Your task to perform on an android device: Clear all items from cart on walmart.com. Add bose soundlink to the cart on walmart.com Image 0: 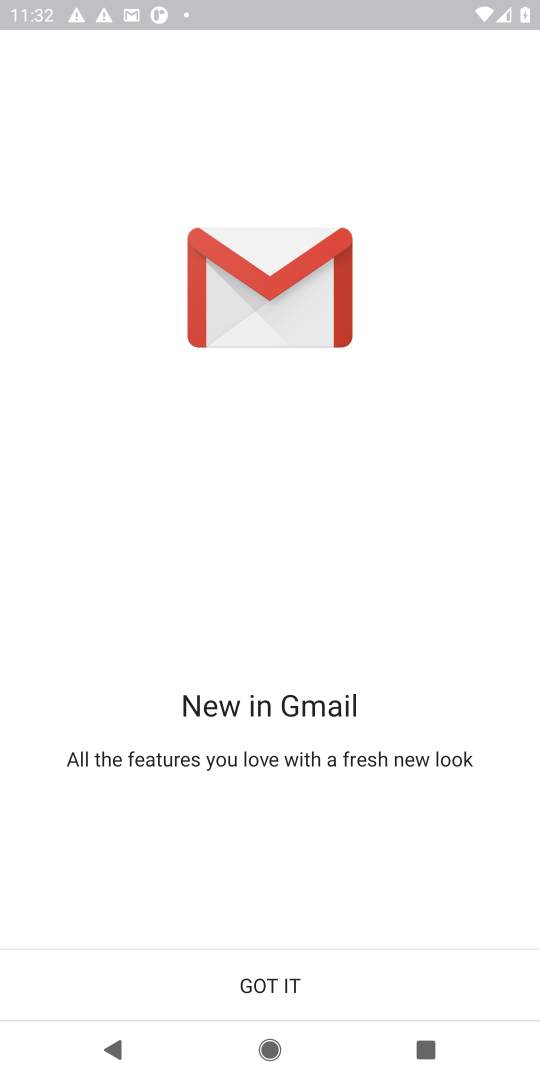
Step 0: press home button
Your task to perform on an android device: Clear all items from cart on walmart.com. Add bose soundlink to the cart on walmart.com Image 1: 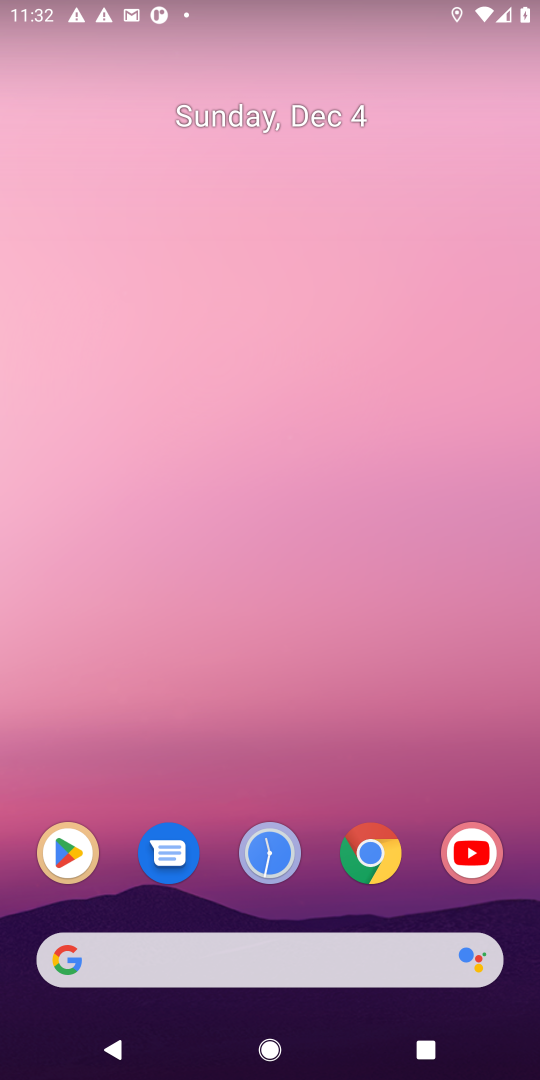
Step 1: press home button
Your task to perform on an android device: Clear all items from cart on walmart.com. Add bose soundlink to the cart on walmart.com Image 2: 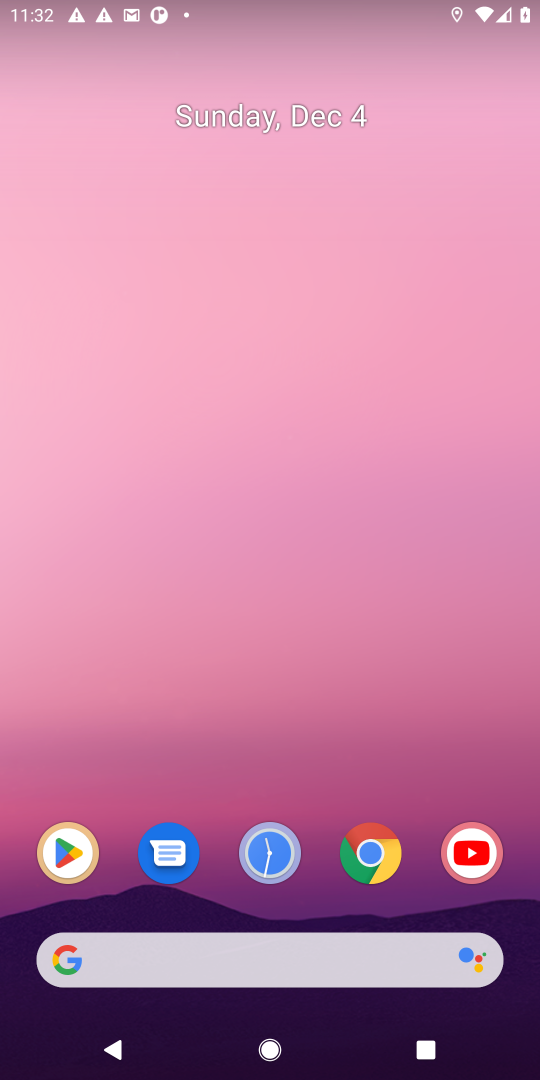
Step 2: click (375, 852)
Your task to perform on an android device: Clear all items from cart on walmart.com. Add bose soundlink to the cart on walmart.com Image 3: 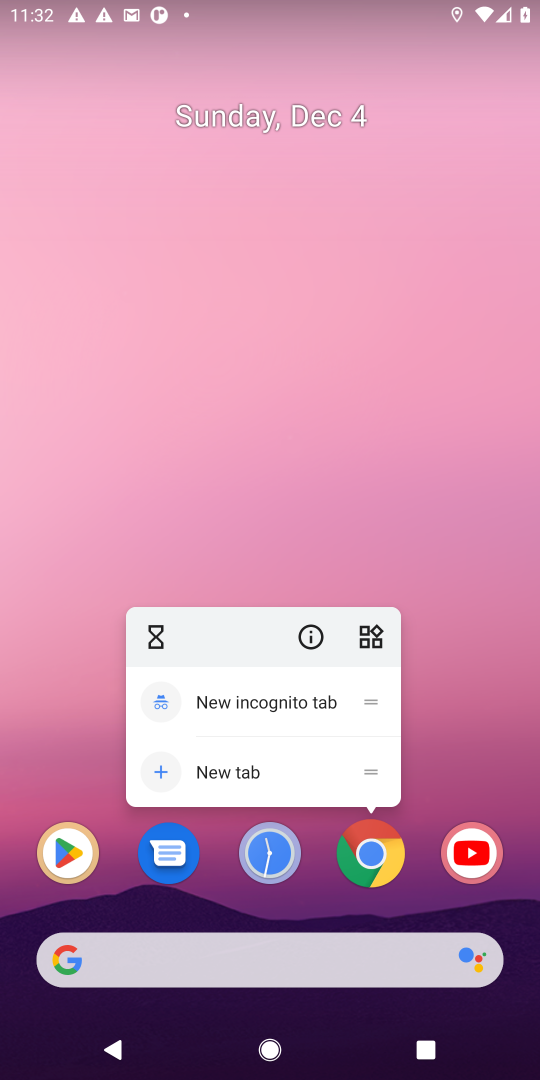
Step 3: click (375, 852)
Your task to perform on an android device: Clear all items from cart on walmart.com. Add bose soundlink to the cart on walmart.com Image 4: 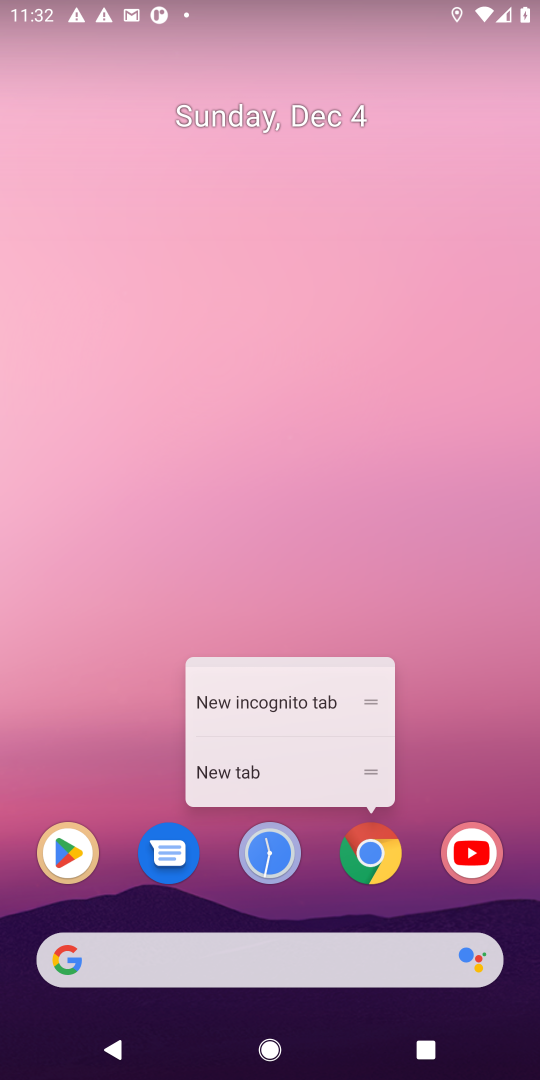
Step 4: click (375, 852)
Your task to perform on an android device: Clear all items from cart on walmart.com. Add bose soundlink to the cart on walmart.com Image 5: 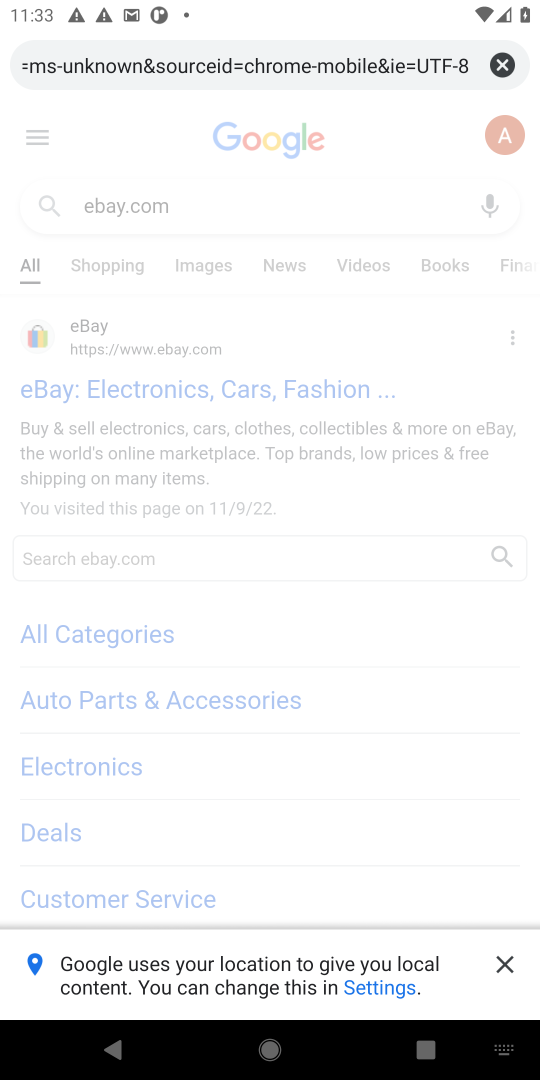
Step 5: click (496, 60)
Your task to perform on an android device: Clear all items from cart on walmart.com. Add bose soundlink to the cart on walmart.com Image 6: 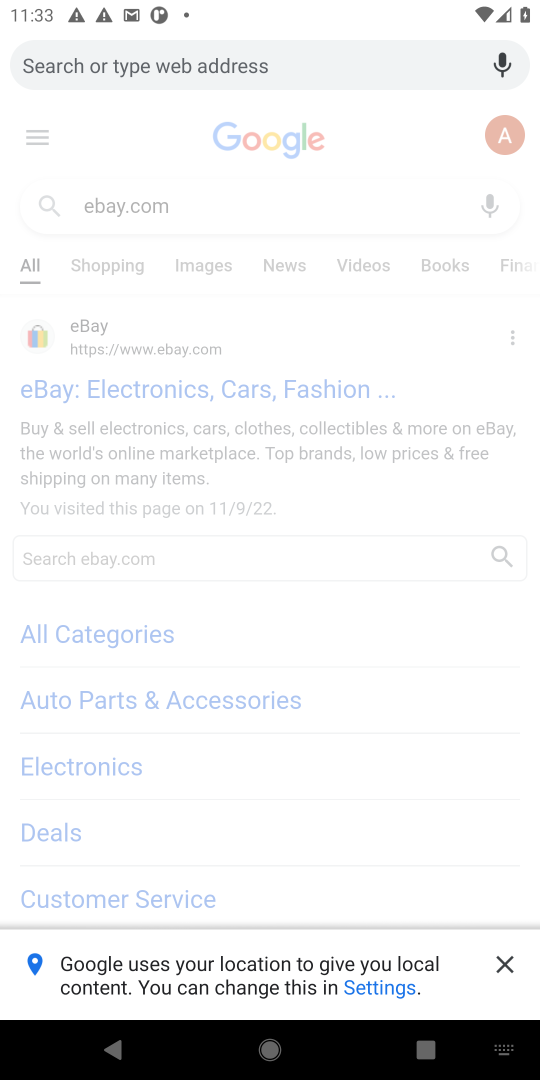
Step 6: type "walmart"
Your task to perform on an android device: Clear all items from cart on walmart.com. Add bose soundlink to the cart on walmart.com Image 7: 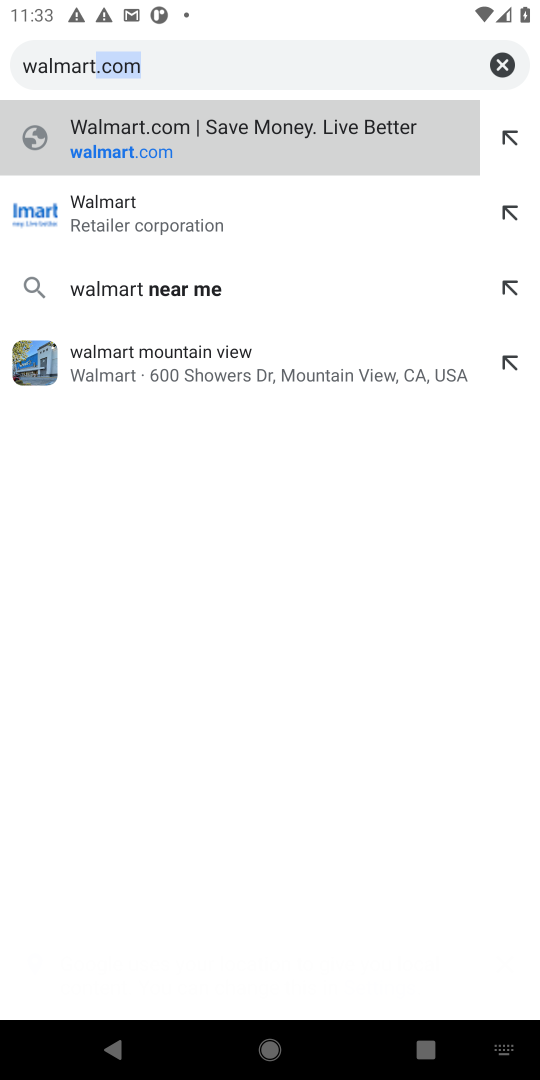
Step 7: click (102, 162)
Your task to perform on an android device: Clear all items from cart on walmart.com. Add bose soundlink to the cart on walmart.com Image 8: 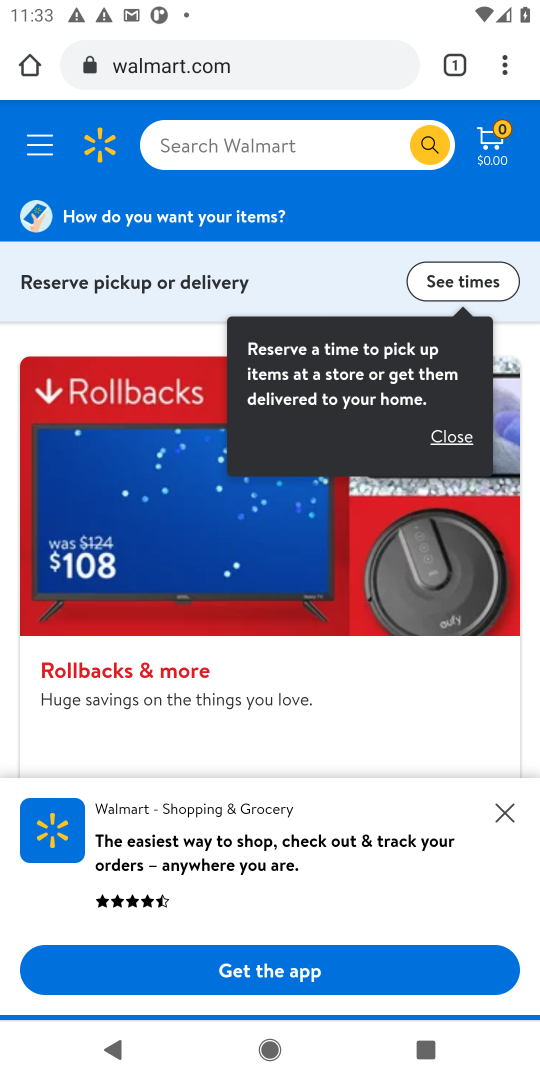
Step 8: click (504, 813)
Your task to perform on an android device: Clear all items from cart on walmart.com. Add bose soundlink to the cart on walmart.com Image 9: 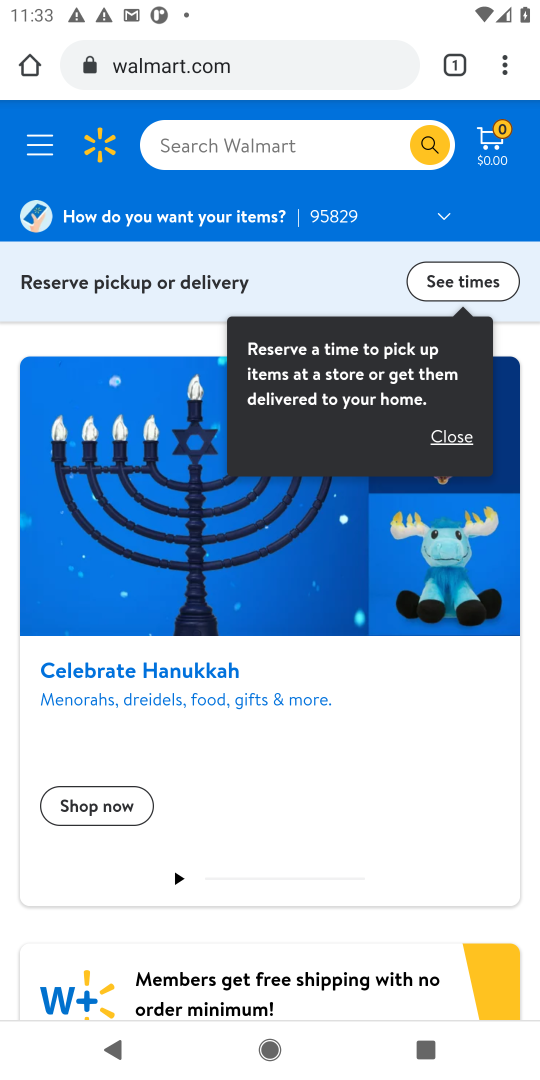
Step 9: click (500, 149)
Your task to perform on an android device: Clear all items from cart on walmart.com. Add bose soundlink to the cart on walmart.com Image 10: 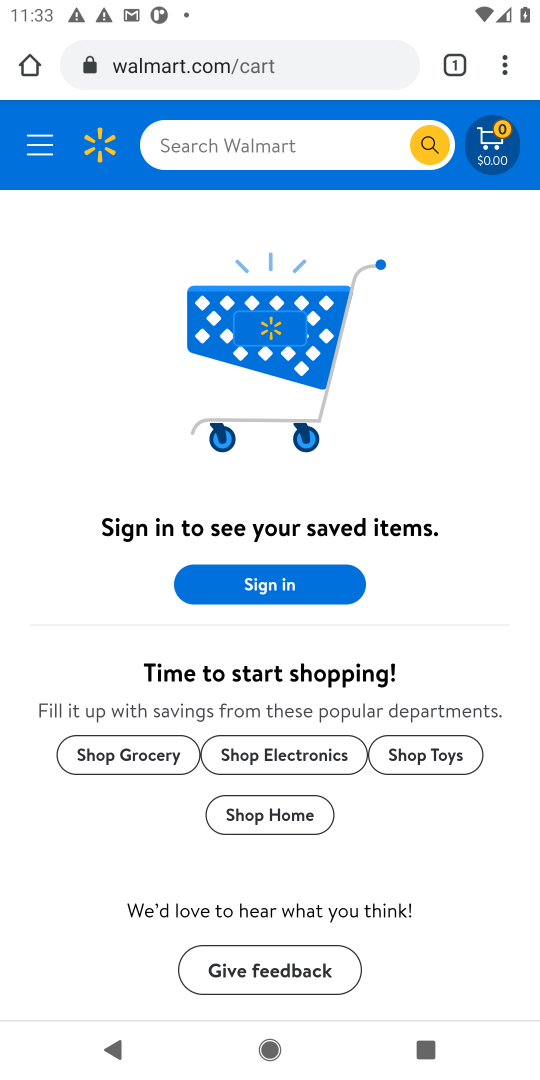
Step 10: click (199, 159)
Your task to perform on an android device: Clear all items from cart on walmart.com. Add bose soundlink to the cart on walmart.com Image 11: 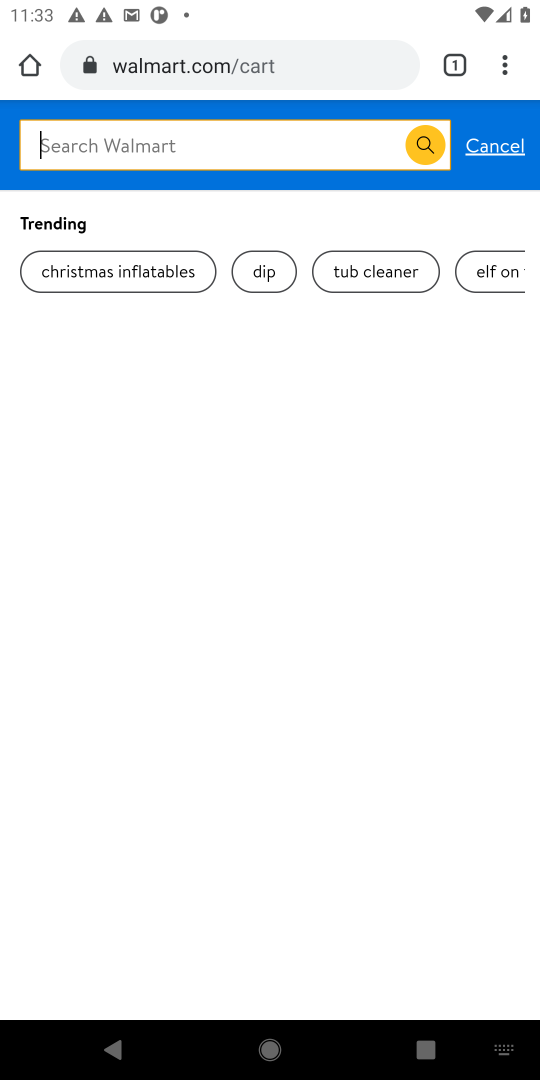
Step 11: type "bose soundlink"
Your task to perform on an android device: Clear all items from cart on walmart.com. Add bose soundlink to the cart on walmart.com Image 12: 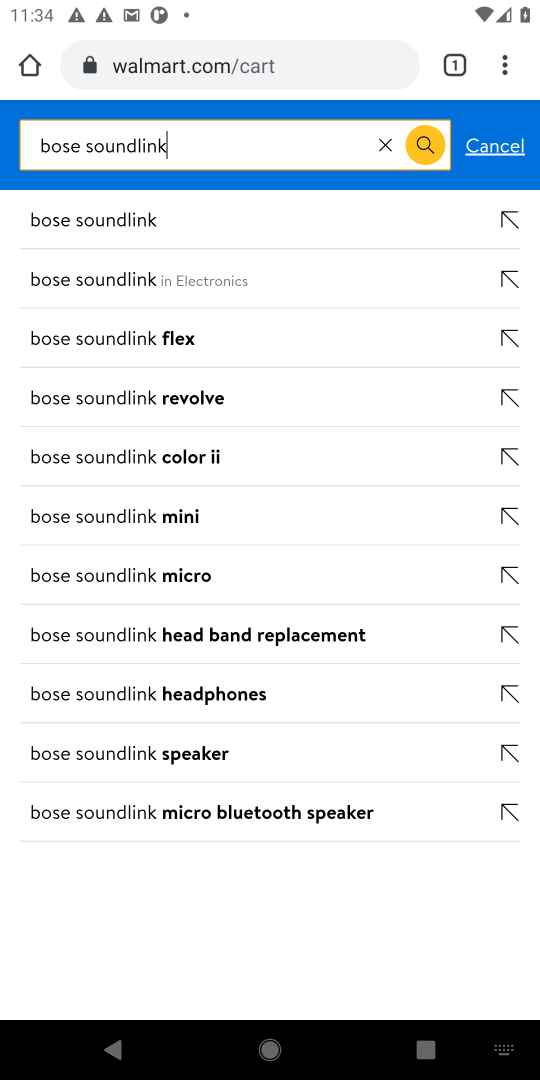
Step 12: click (434, 154)
Your task to perform on an android device: Clear all items from cart on walmart.com. Add bose soundlink to the cart on walmart.com Image 13: 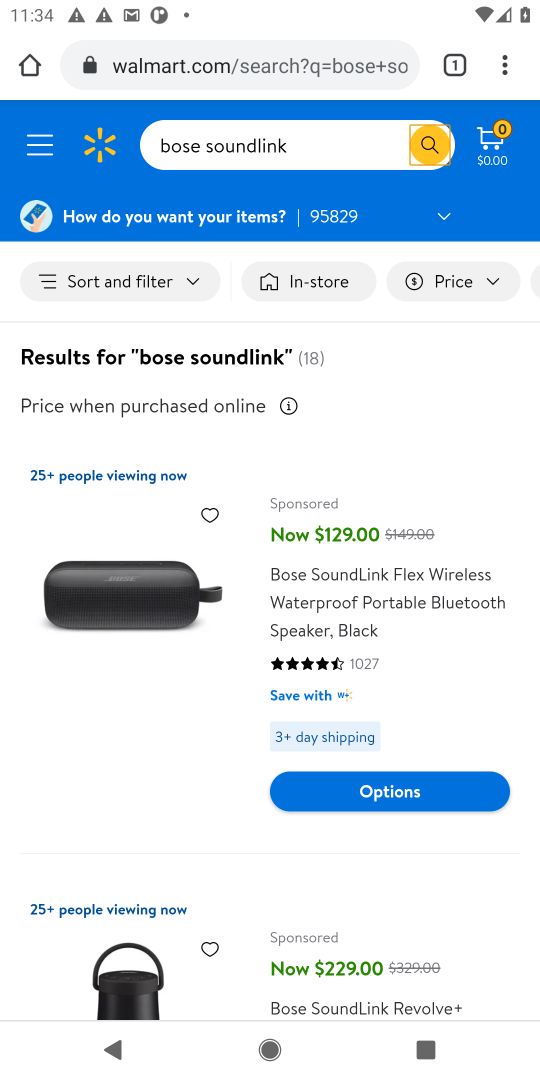
Step 13: click (413, 794)
Your task to perform on an android device: Clear all items from cart on walmart.com. Add bose soundlink to the cart on walmart.com Image 14: 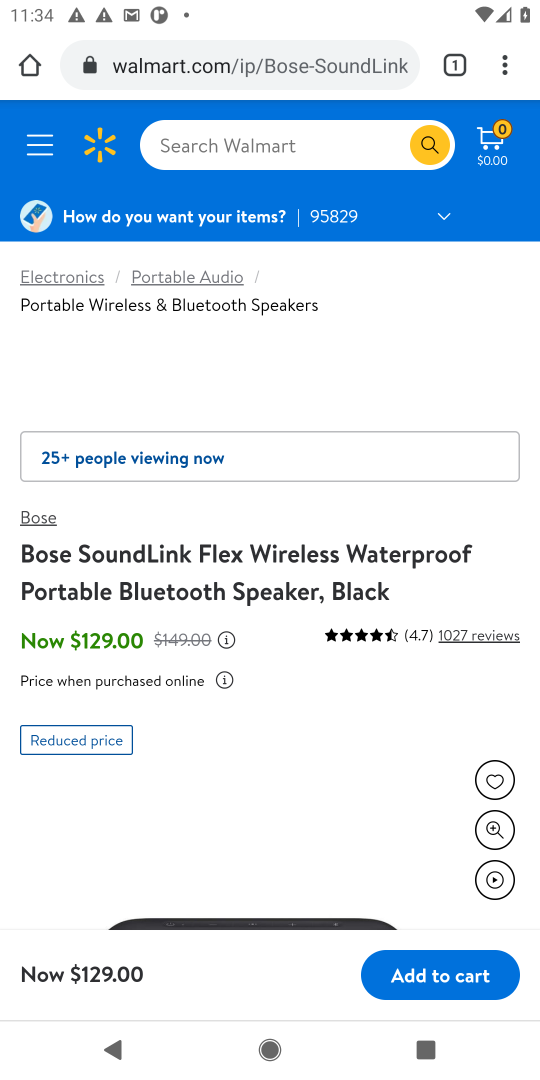
Step 14: click (489, 989)
Your task to perform on an android device: Clear all items from cart on walmart.com. Add bose soundlink to the cart on walmart.com Image 15: 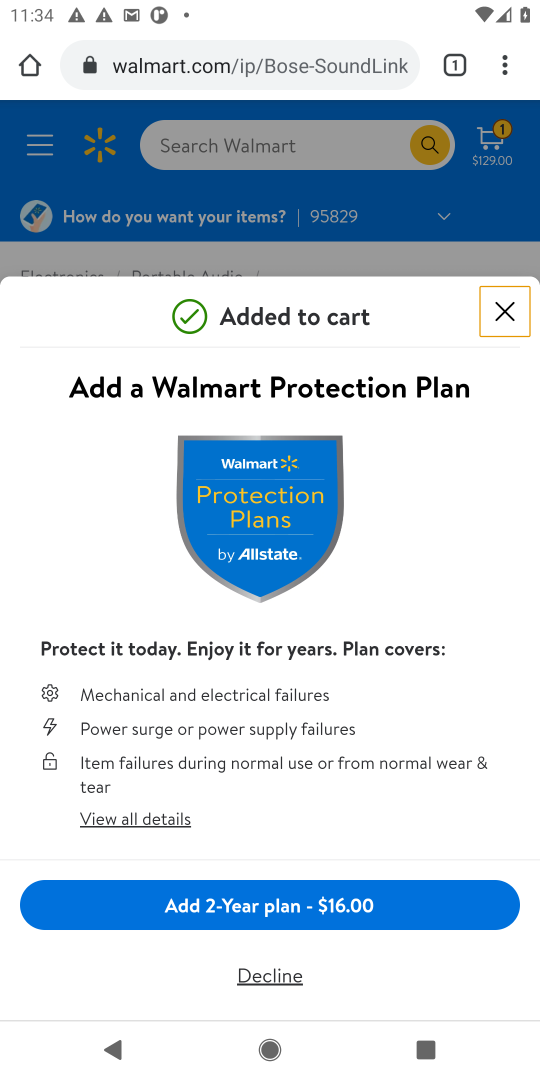
Step 15: click (506, 322)
Your task to perform on an android device: Clear all items from cart on walmart.com. Add bose soundlink to the cart on walmart.com Image 16: 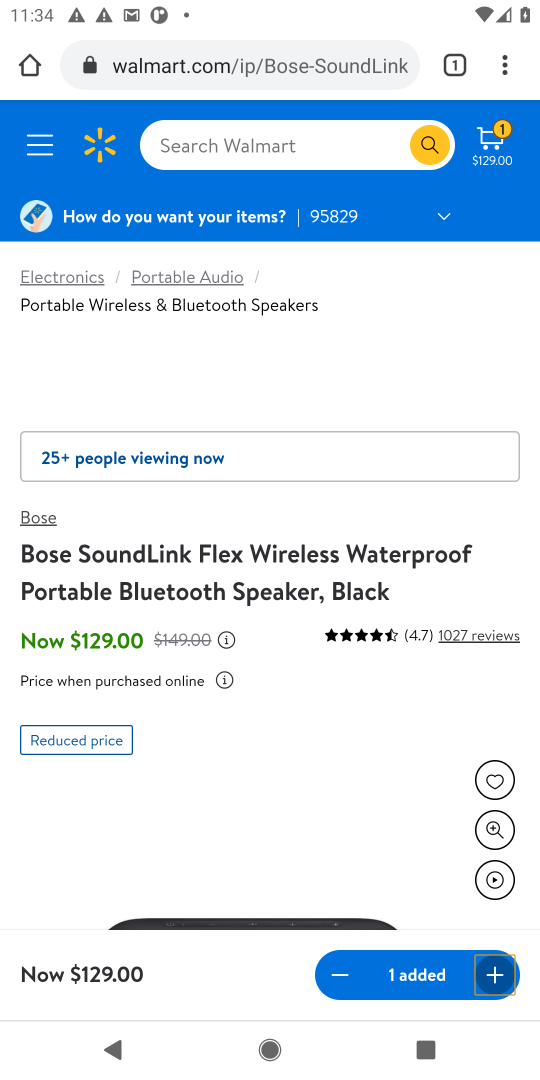
Step 16: task complete